Your task to perform on an android device: Show me popular games on the Play Store Image 0: 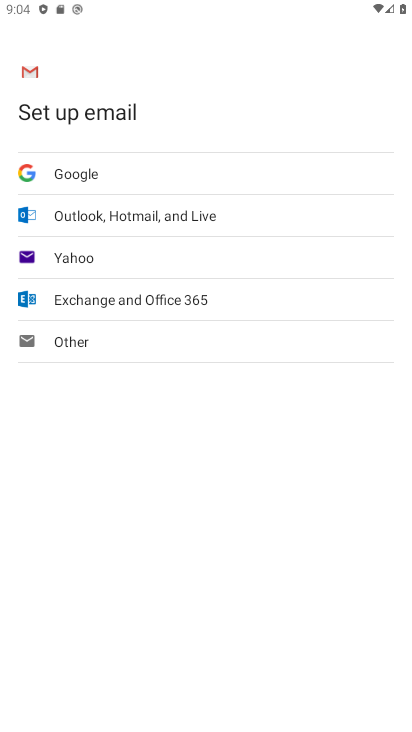
Step 0: press home button
Your task to perform on an android device: Show me popular games on the Play Store Image 1: 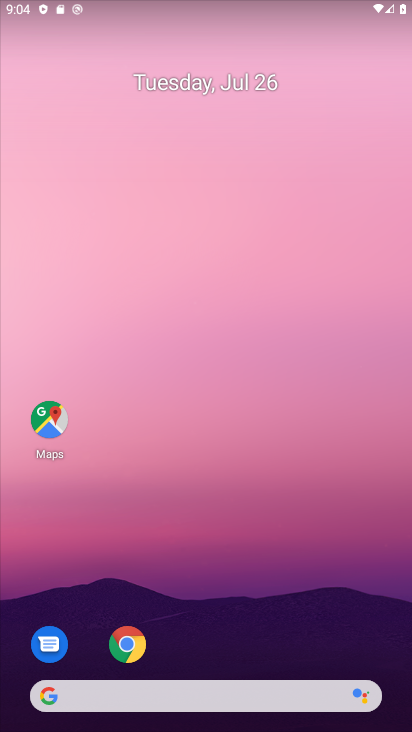
Step 1: drag from (237, 658) to (273, 6)
Your task to perform on an android device: Show me popular games on the Play Store Image 2: 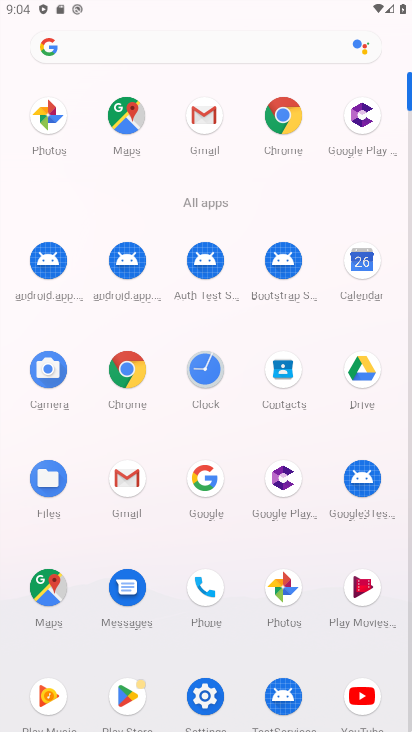
Step 2: click (133, 693)
Your task to perform on an android device: Show me popular games on the Play Store Image 3: 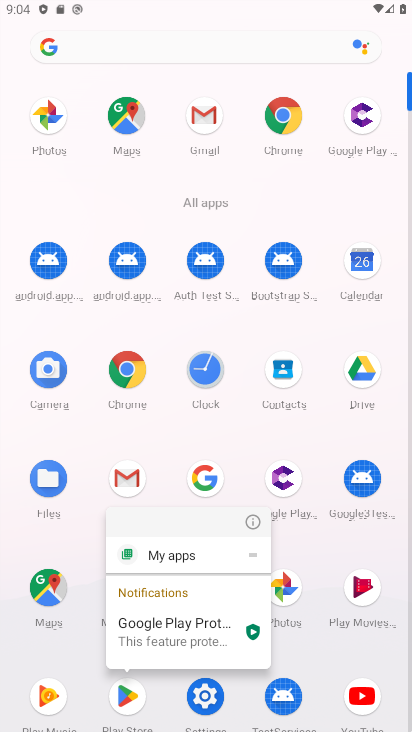
Step 3: click (140, 688)
Your task to perform on an android device: Show me popular games on the Play Store Image 4: 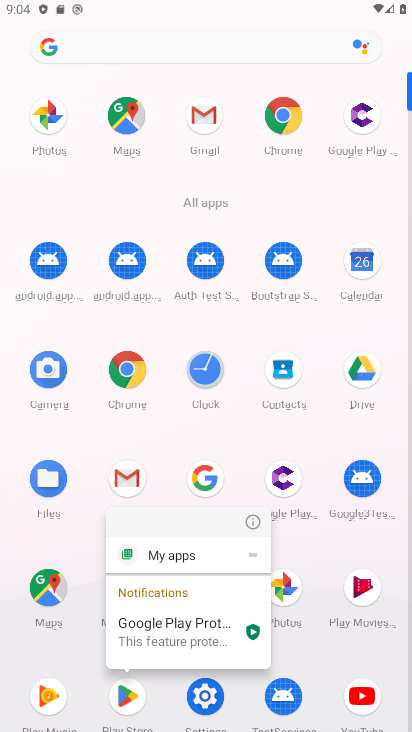
Step 4: click (134, 702)
Your task to perform on an android device: Show me popular games on the Play Store Image 5: 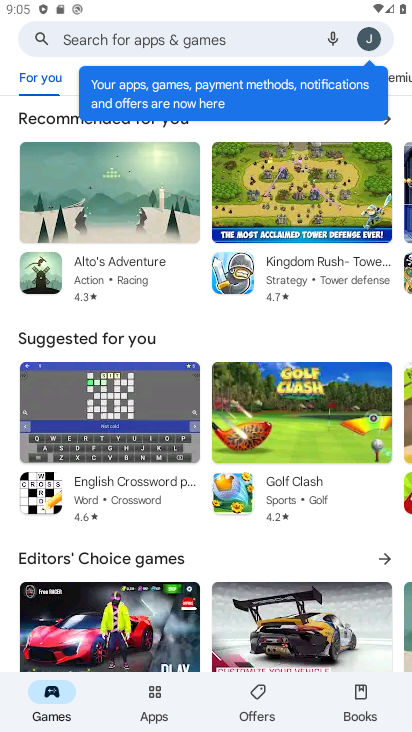
Step 5: drag from (69, 86) to (25, 77)
Your task to perform on an android device: Show me popular games on the Play Store Image 6: 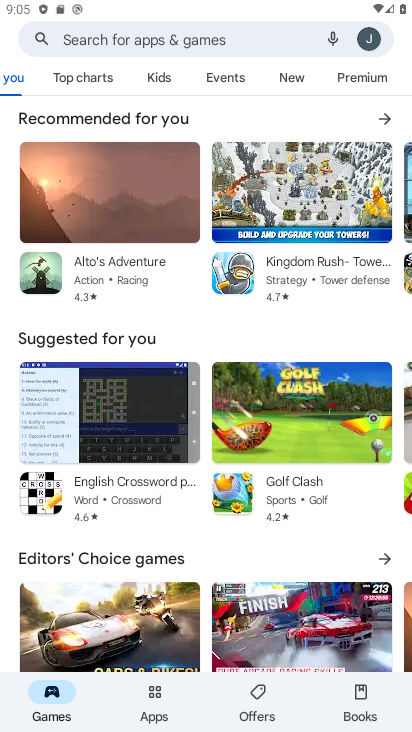
Step 6: click (90, 81)
Your task to perform on an android device: Show me popular games on the Play Store Image 7: 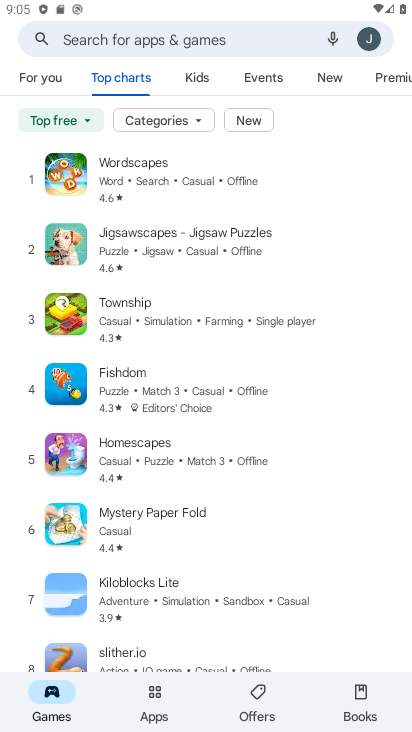
Step 7: task complete